Your task to perform on an android device: allow notifications from all sites in the chrome app Image 0: 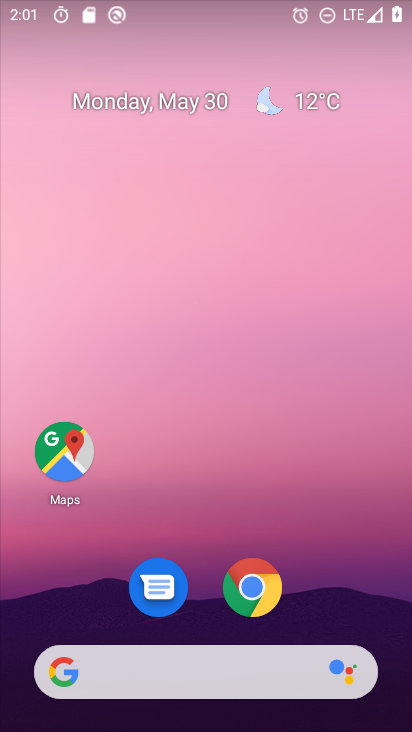
Step 0: click (243, 581)
Your task to perform on an android device: allow notifications from all sites in the chrome app Image 1: 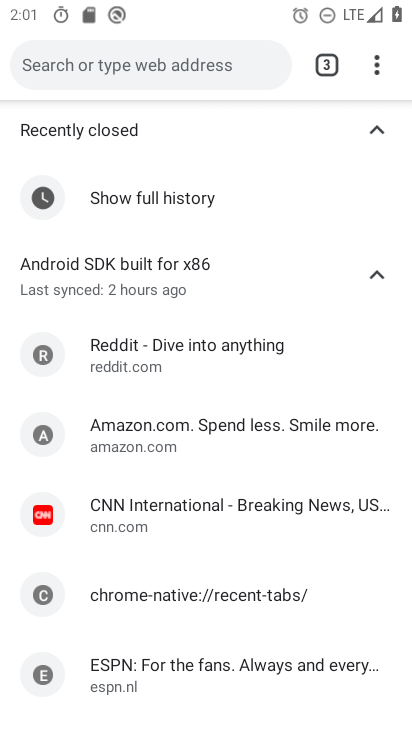
Step 1: drag from (385, 59) to (255, 517)
Your task to perform on an android device: allow notifications from all sites in the chrome app Image 2: 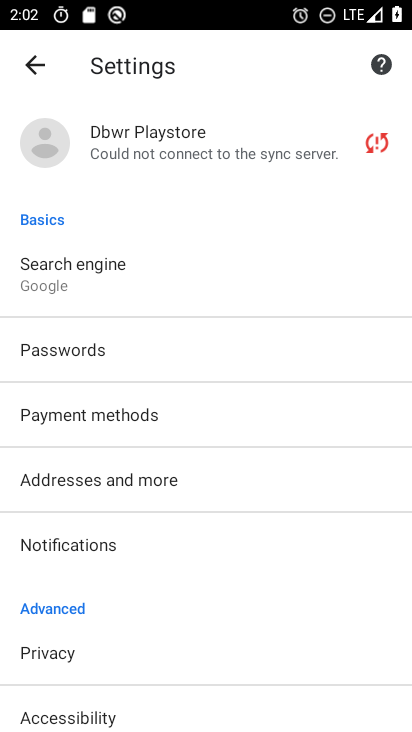
Step 2: drag from (146, 607) to (165, 387)
Your task to perform on an android device: allow notifications from all sites in the chrome app Image 3: 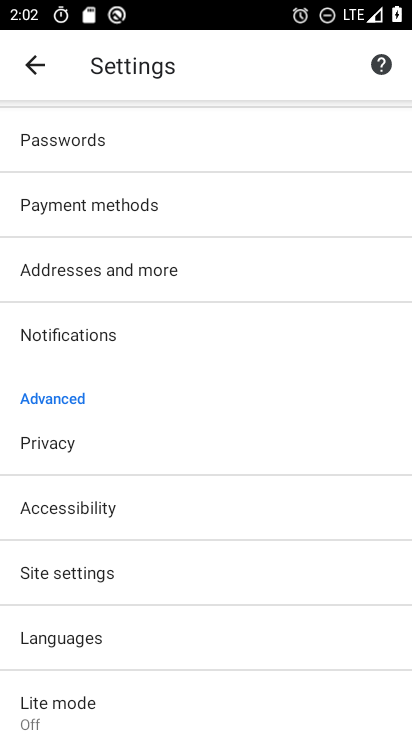
Step 3: click (122, 332)
Your task to perform on an android device: allow notifications from all sites in the chrome app Image 4: 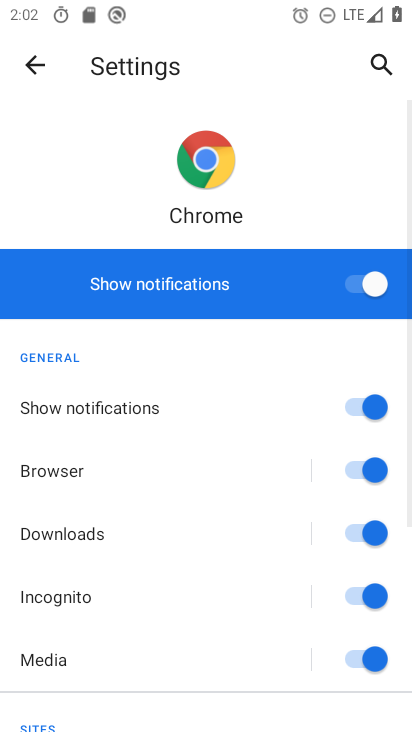
Step 4: task complete